Your task to perform on an android device: turn on the 24-hour format for clock Image 0: 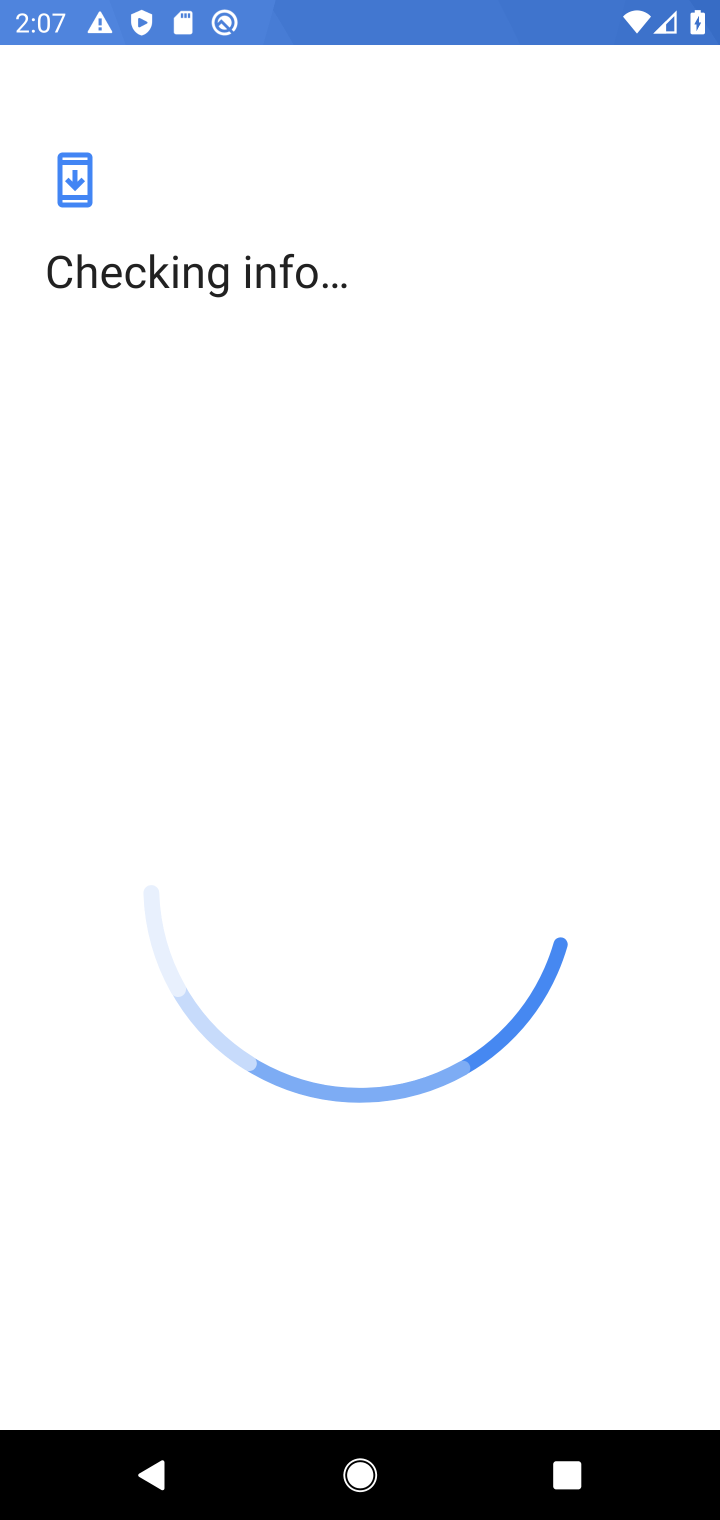
Step 0: press home button
Your task to perform on an android device: turn on the 24-hour format for clock Image 1: 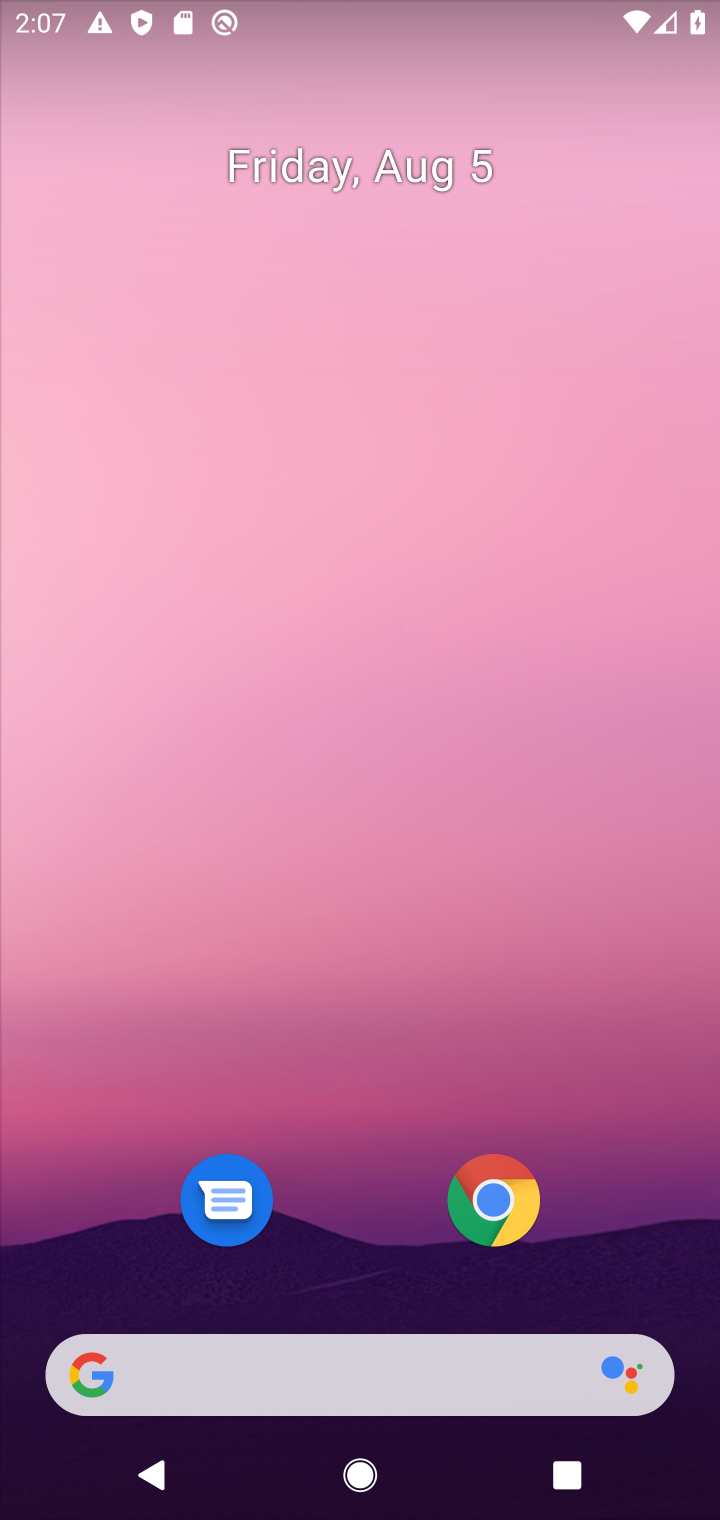
Step 1: drag from (365, 1157) to (436, 188)
Your task to perform on an android device: turn on the 24-hour format for clock Image 2: 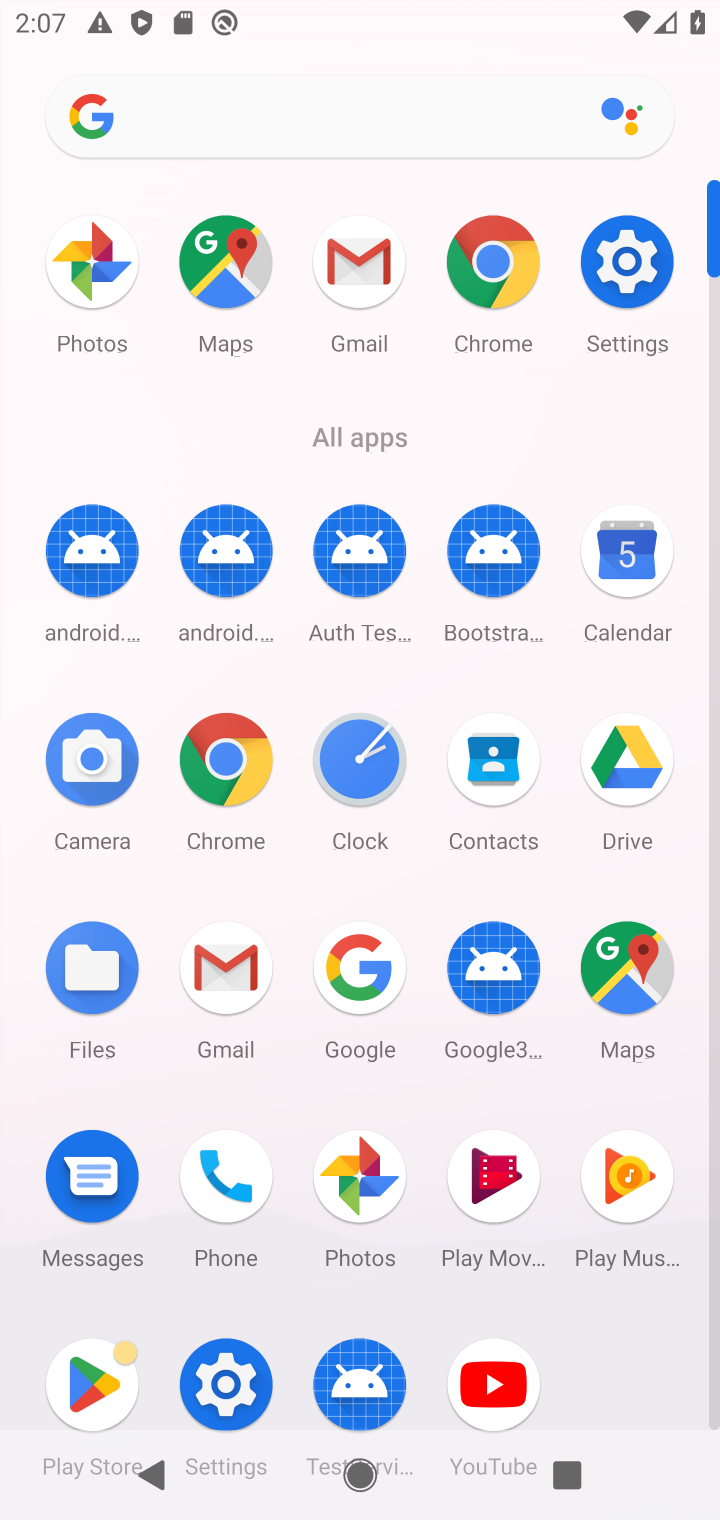
Step 2: click (363, 761)
Your task to perform on an android device: turn on the 24-hour format for clock Image 3: 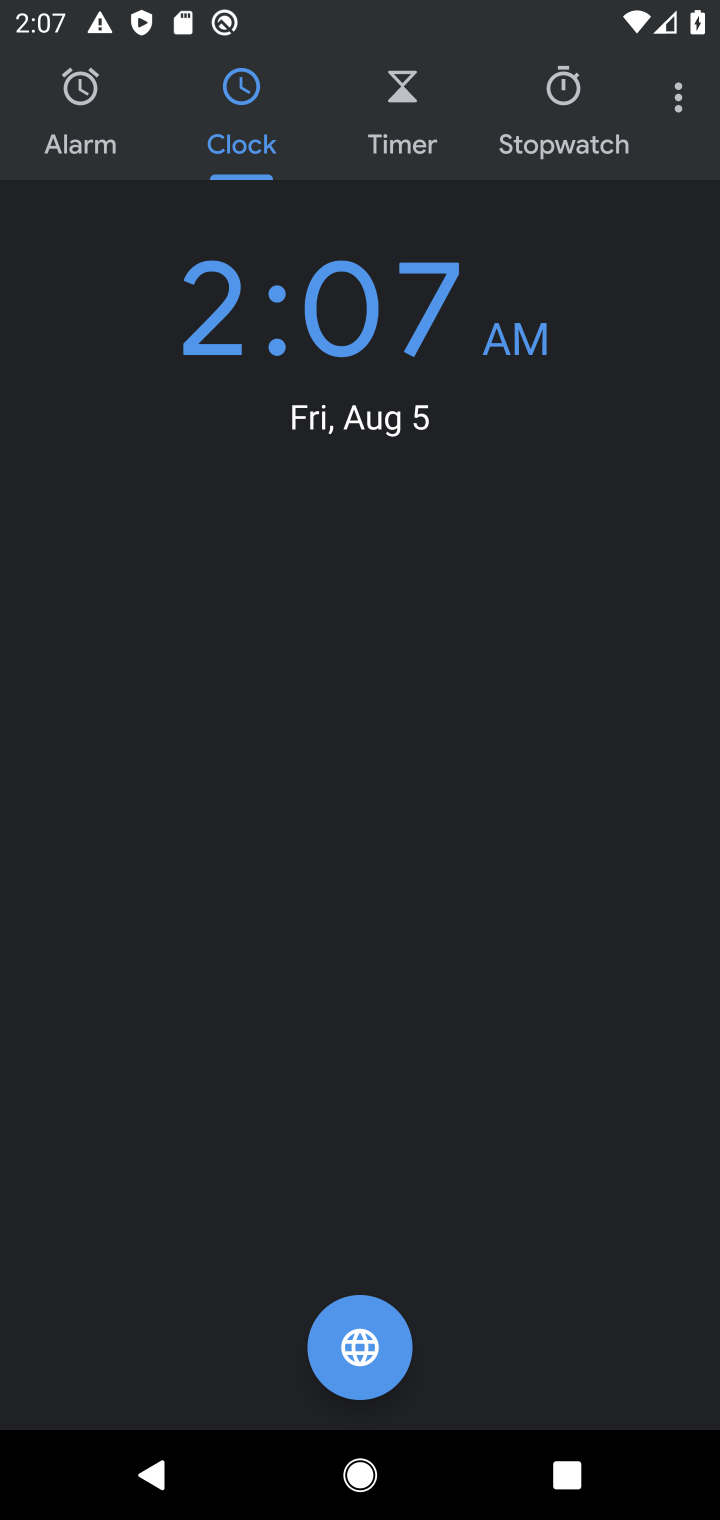
Step 3: click (682, 81)
Your task to perform on an android device: turn on the 24-hour format for clock Image 4: 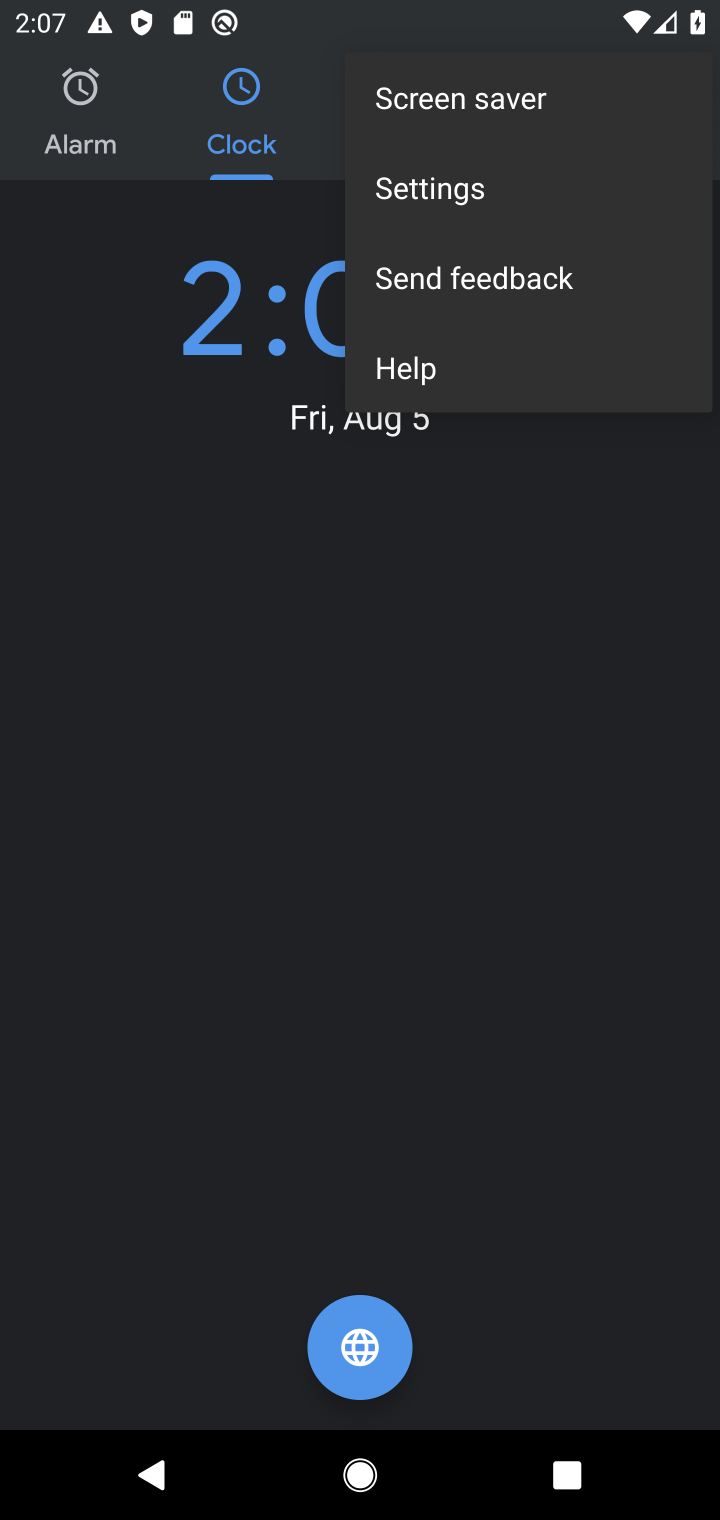
Step 4: click (483, 171)
Your task to perform on an android device: turn on the 24-hour format for clock Image 5: 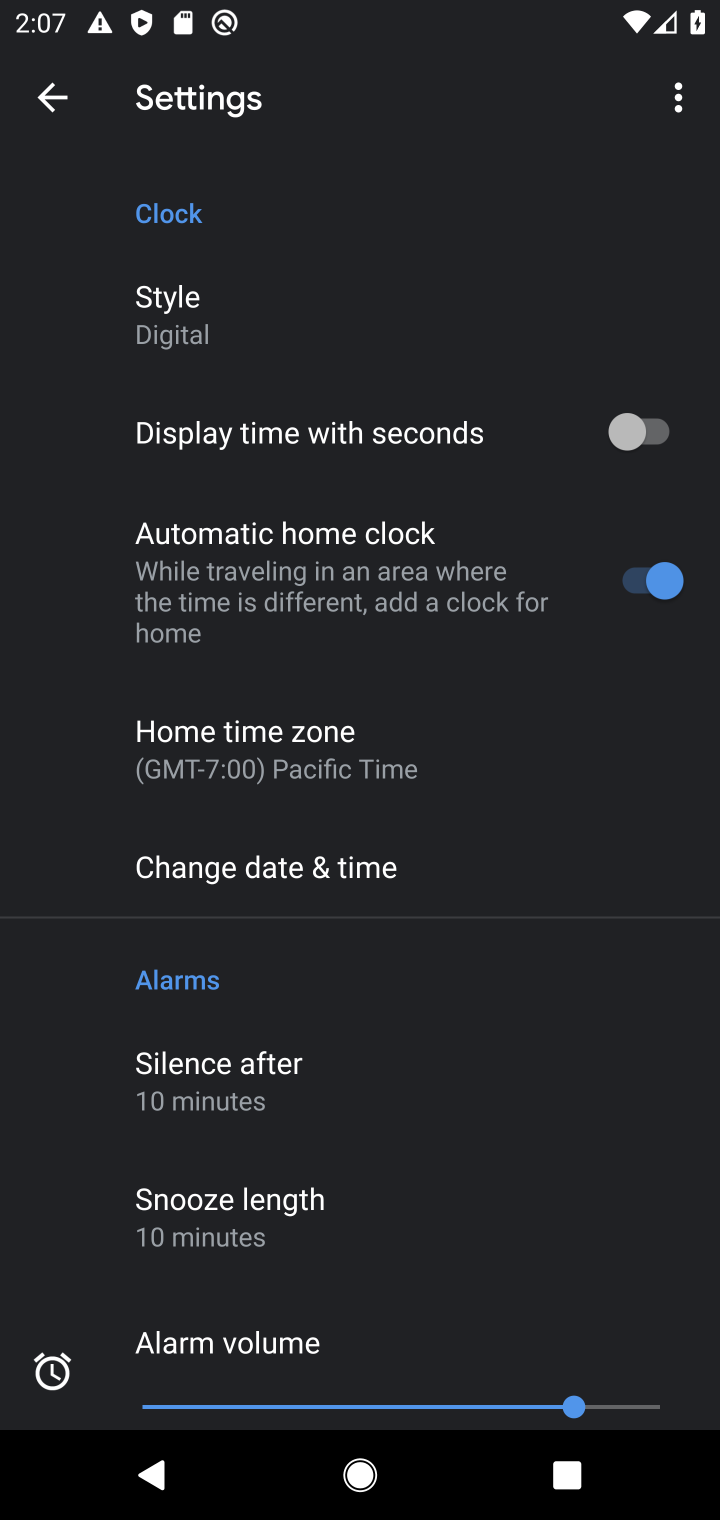
Step 5: click (339, 871)
Your task to perform on an android device: turn on the 24-hour format for clock Image 6: 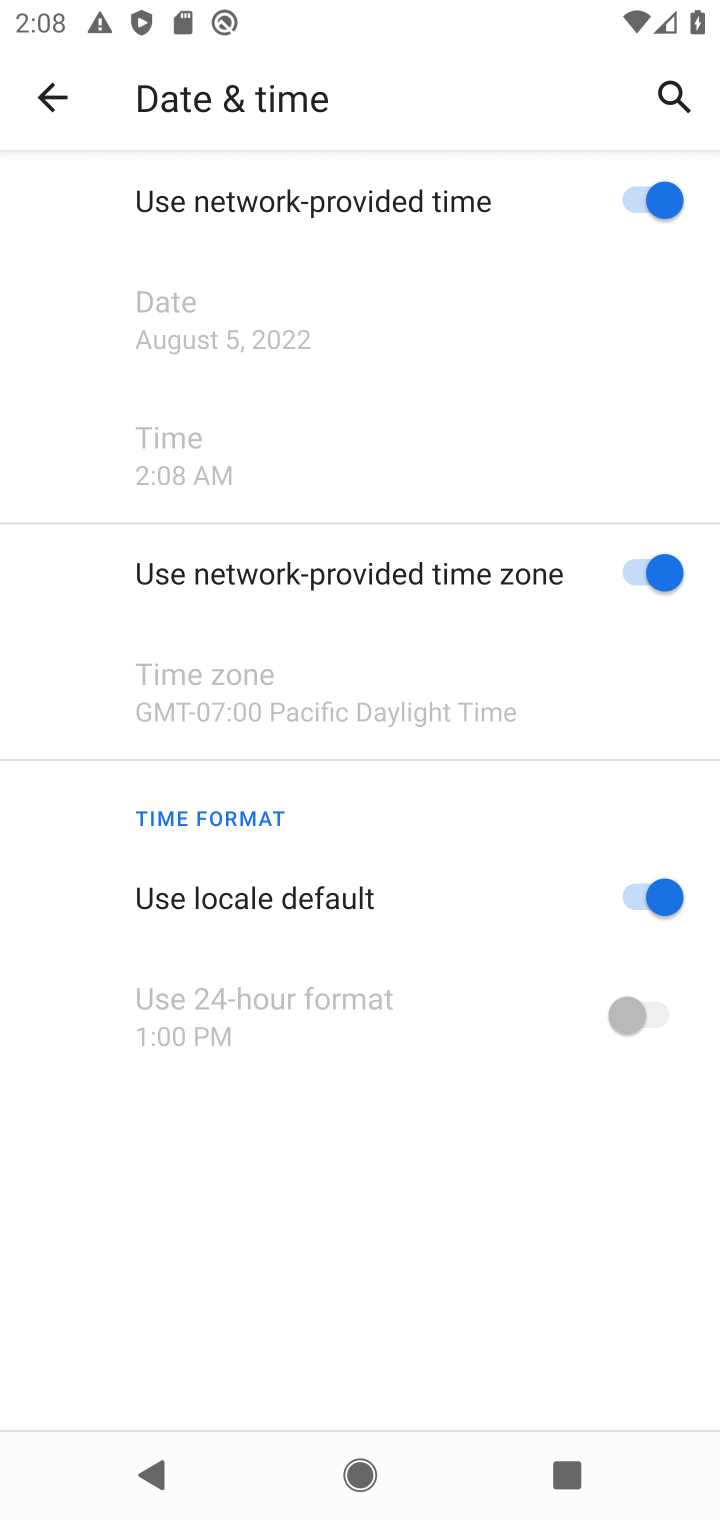
Step 6: click (643, 900)
Your task to perform on an android device: turn on the 24-hour format for clock Image 7: 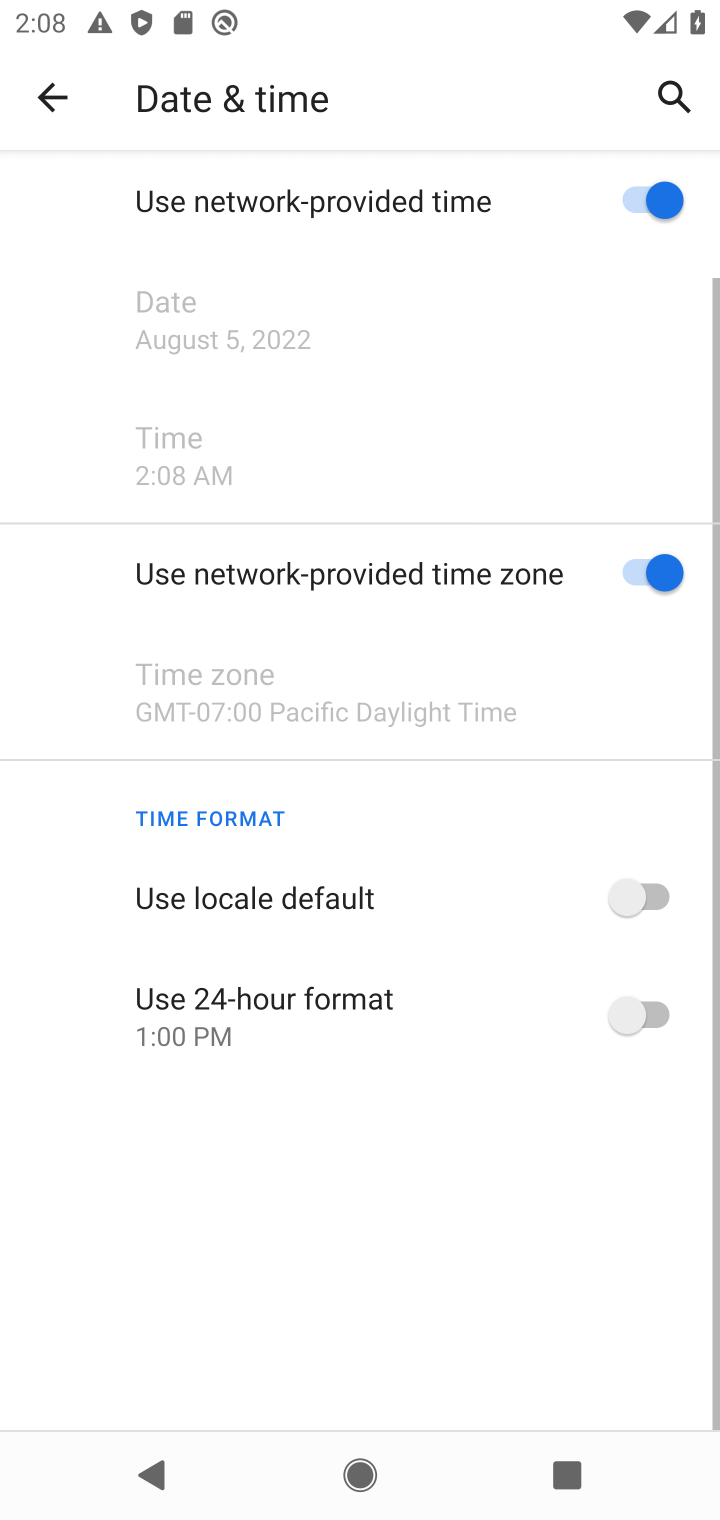
Step 7: click (662, 1022)
Your task to perform on an android device: turn on the 24-hour format for clock Image 8: 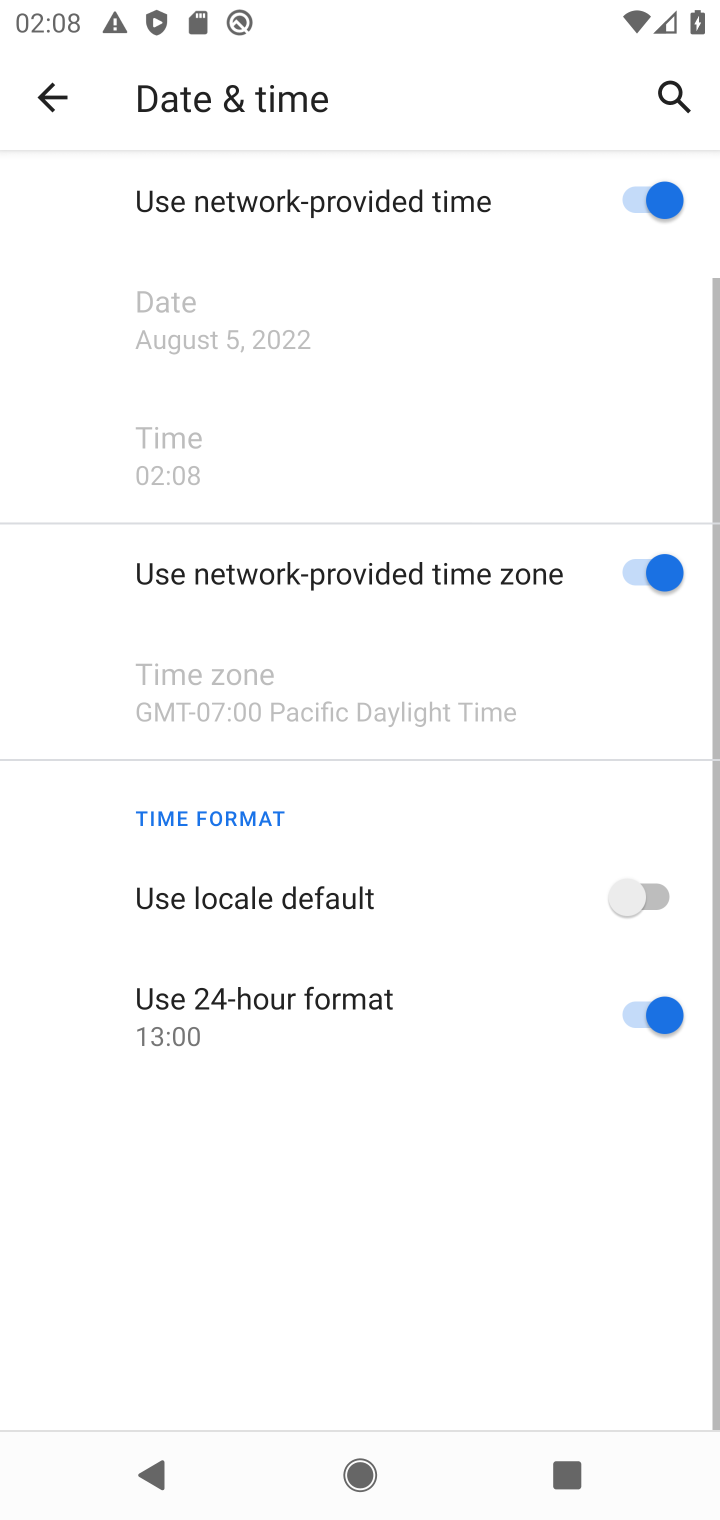
Step 8: task complete